Your task to perform on an android device: add a contact Image 0: 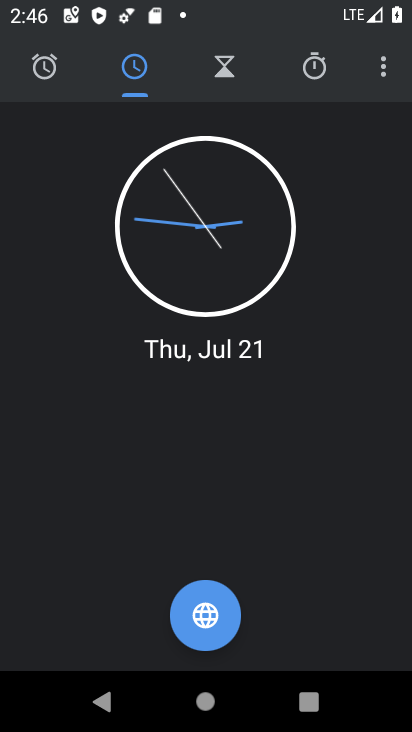
Step 0: press home button
Your task to perform on an android device: add a contact Image 1: 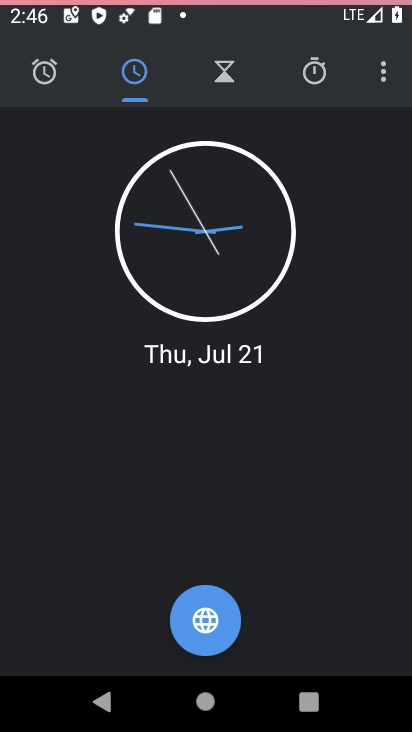
Step 1: press home button
Your task to perform on an android device: add a contact Image 2: 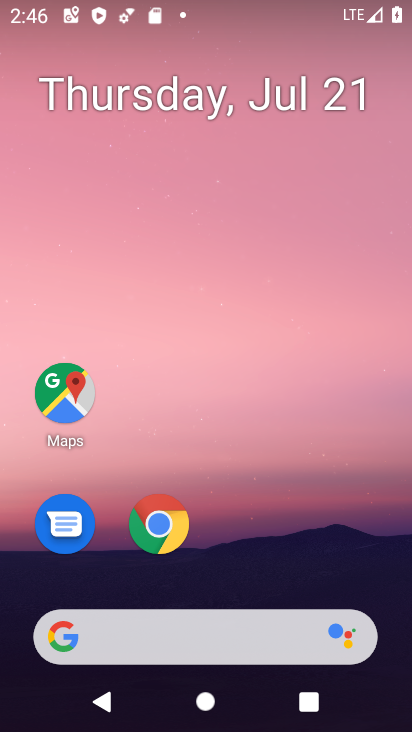
Step 2: drag from (240, 529) to (253, 66)
Your task to perform on an android device: add a contact Image 3: 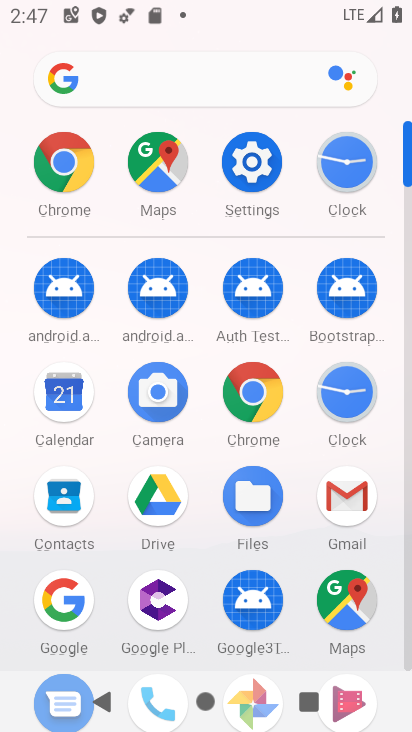
Step 3: click (73, 502)
Your task to perform on an android device: add a contact Image 4: 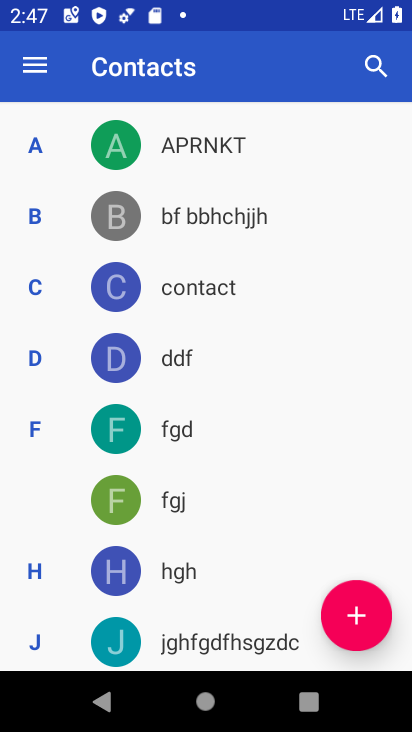
Step 4: click (357, 618)
Your task to perform on an android device: add a contact Image 5: 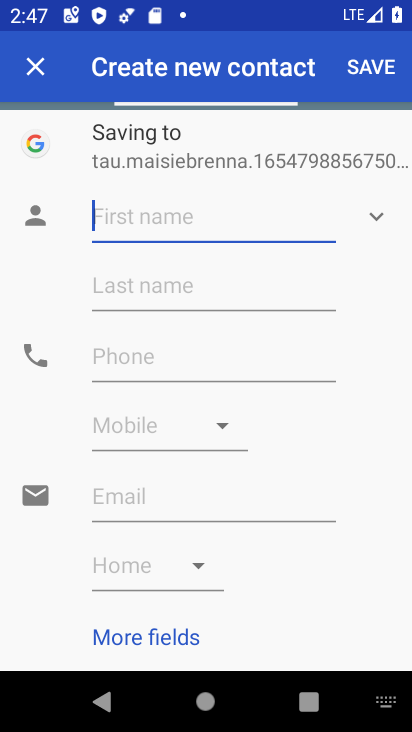
Step 5: type "Shri Om Namo Shivay"
Your task to perform on an android device: add a contact Image 6: 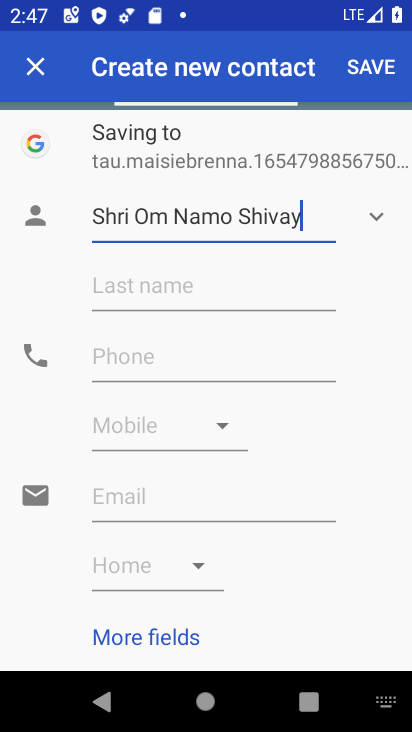
Step 6: click (225, 355)
Your task to perform on an android device: add a contact Image 7: 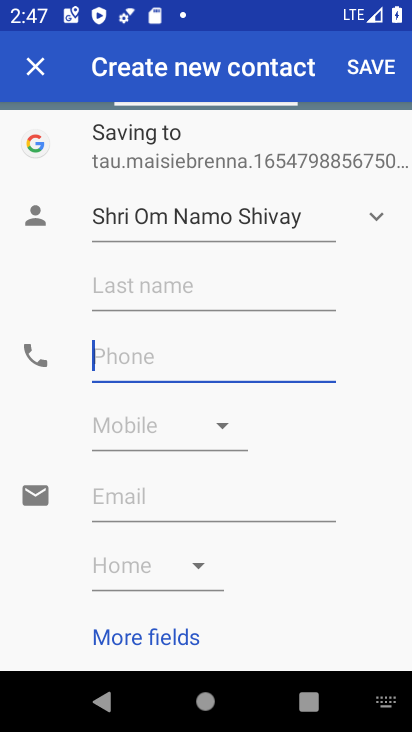
Step 7: type "9122000001"
Your task to perform on an android device: add a contact Image 8: 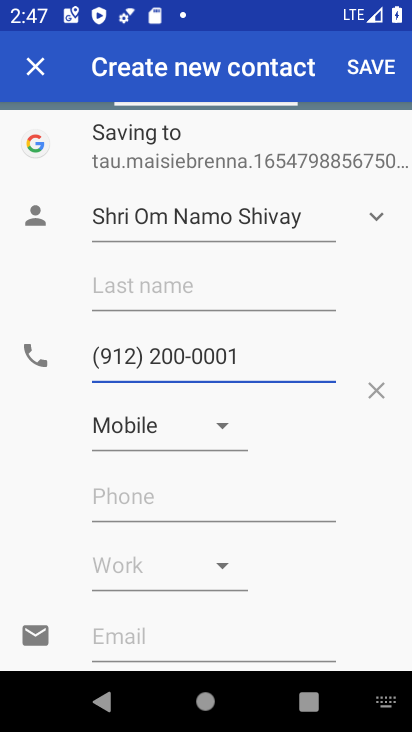
Step 8: click (382, 66)
Your task to perform on an android device: add a contact Image 9: 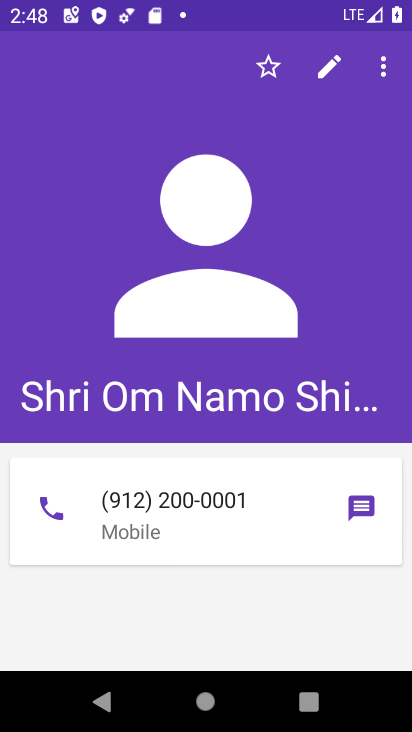
Step 9: task complete